Your task to perform on an android device: turn off picture-in-picture Image 0: 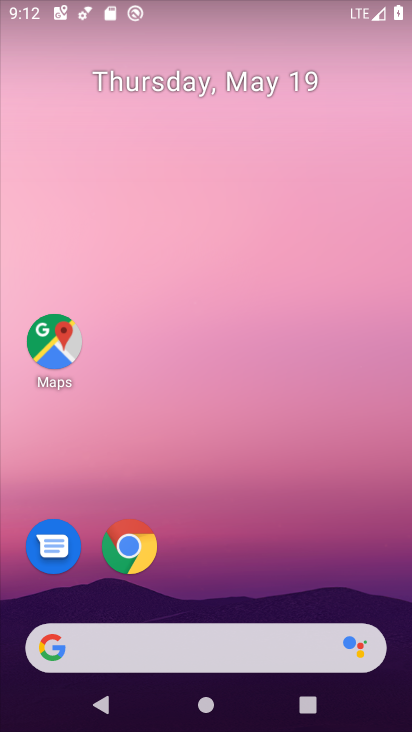
Step 0: drag from (271, 666) to (169, 2)
Your task to perform on an android device: turn off picture-in-picture Image 1: 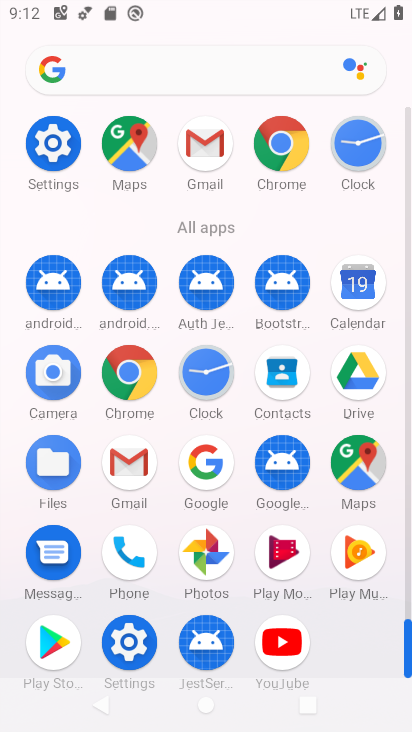
Step 1: click (280, 144)
Your task to perform on an android device: turn off picture-in-picture Image 2: 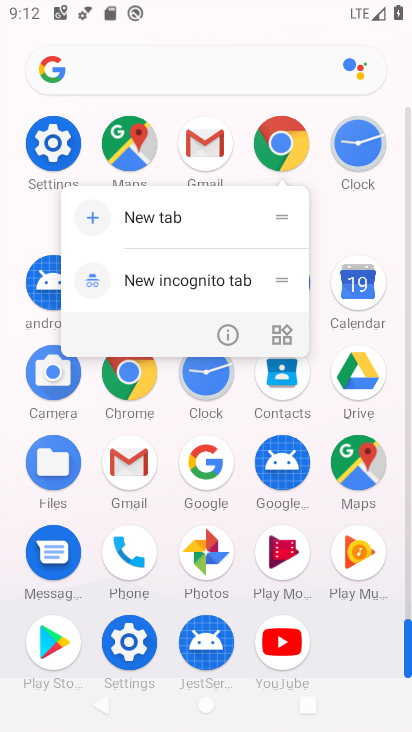
Step 2: click (230, 337)
Your task to perform on an android device: turn off picture-in-picture Image 3: 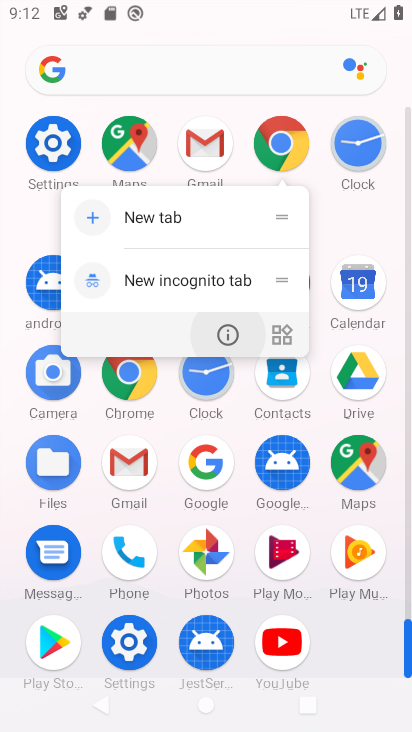
Step 3: click (231, 336)
Your task to perform on an android device: turn off picture-in-picture Image 4: 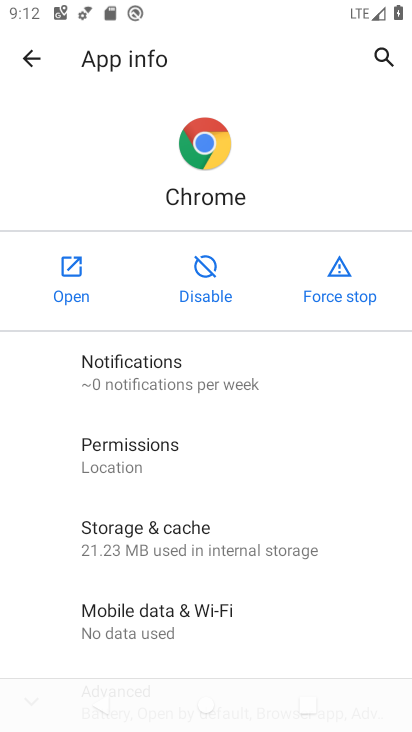
Step 4: drag from (167, 546) to (141, 221)
Your task to perform on an android device: turn off picture-in-picture Image 5: 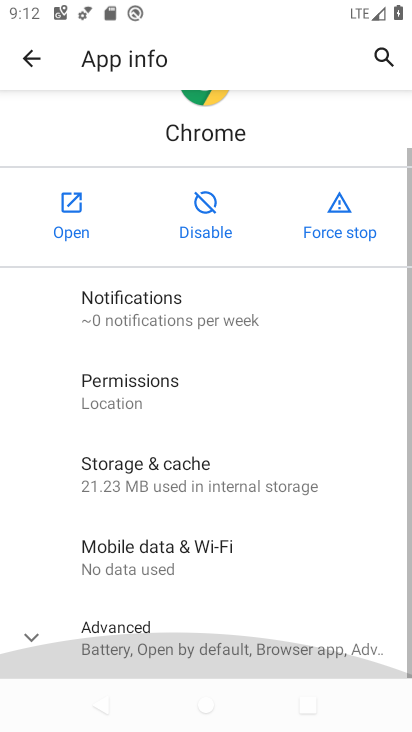
Step 5: drag from (200, 463) to (200, 141)
Your task to perform on an android device: turn off picture-in-picture Image 6: 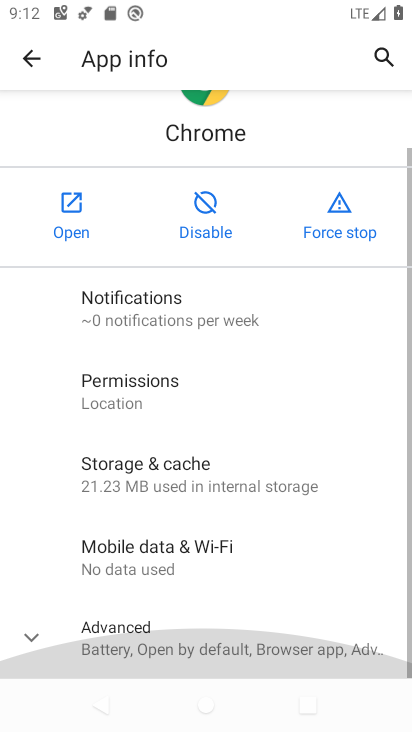
Step 6: drag from (191, 449) to (189, 106)
Your task to perform on an android device: turn off picture-in-picture Image 7: 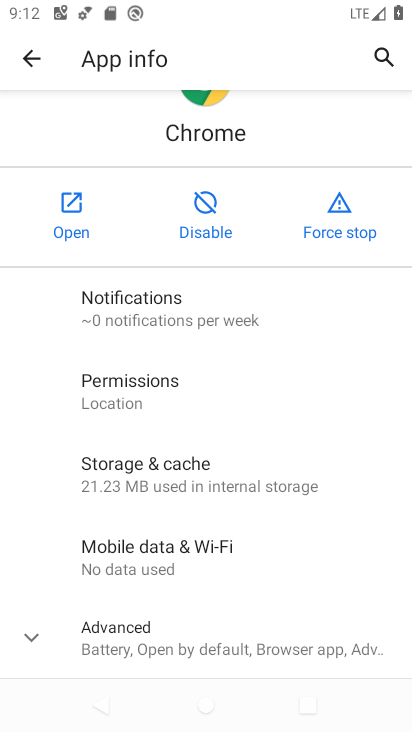
Step 7: drag from (231, 549) to (167, 150)
Your task to perform on an android device: turn off picture-in-picture Image 8: 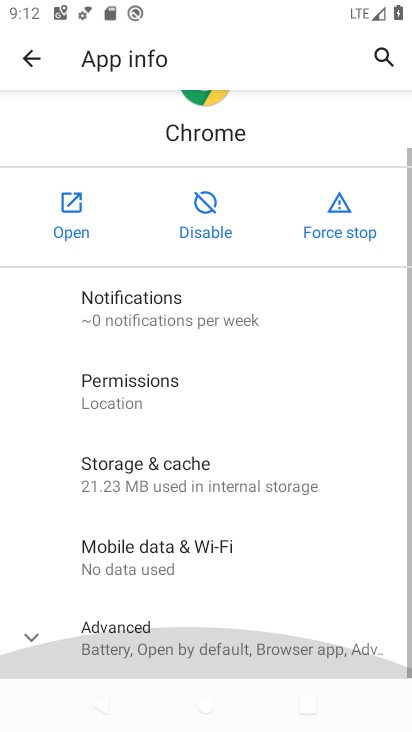
Step 8: drag from (116, 457) to (123, 216)
Your task to perform on an android device: turn off picture-in-picture Image 9: 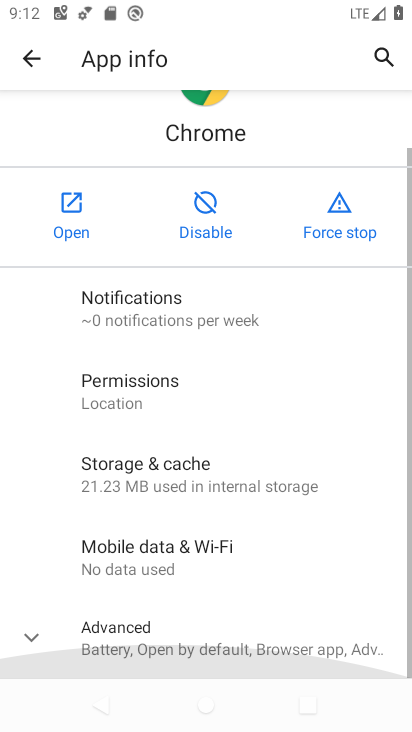
Step 9: drag from (203, 494) to (196, 236)
Your task to perform on an android device: turn off picture-in-picture Image 10: 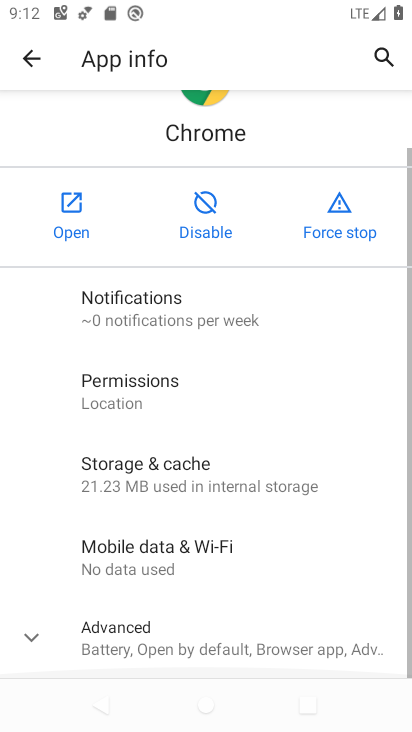
Step 10: drag from (116, 292) to (100, 126)
Your task to perform on an android device: turn off picture-in-picture Image 11: 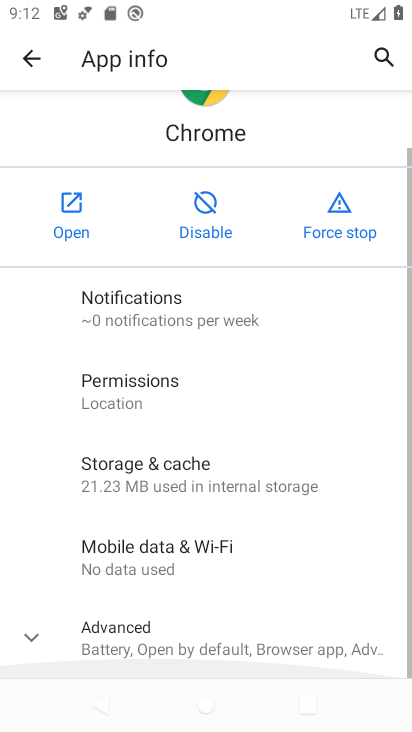
Step 11: drag from (152, 553) to (201, 267)
Your task to perform on an android device: turn off picture-in-picture Image 12: 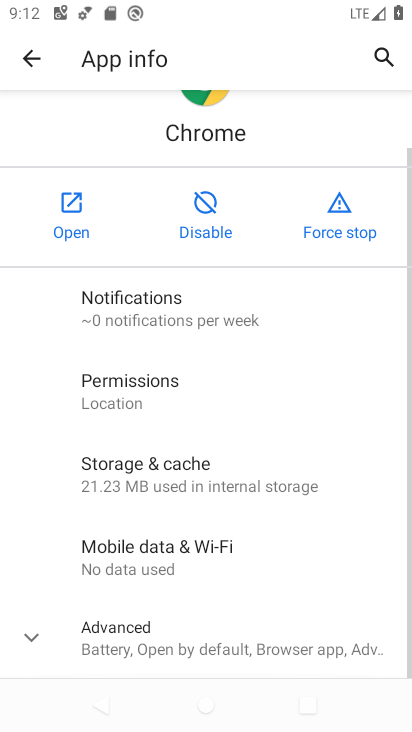
Step 12: click (138, 640)
Your task to perform on an android device: turn off picture-in-picture Image 13: 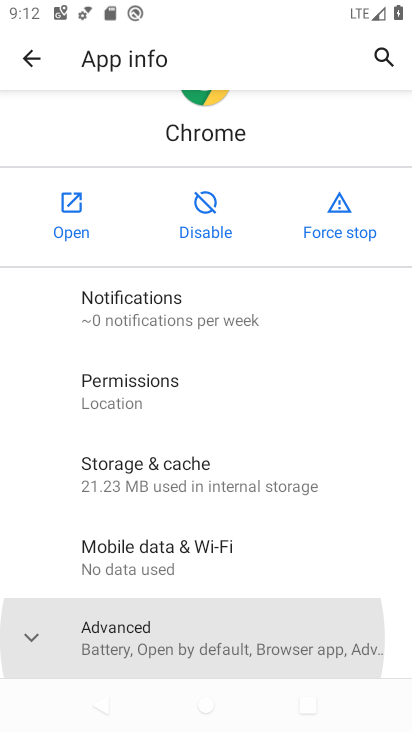
Step 13: click (138, 640)
Your task to perform on an android device: turn off picture-in-picture Image 14: 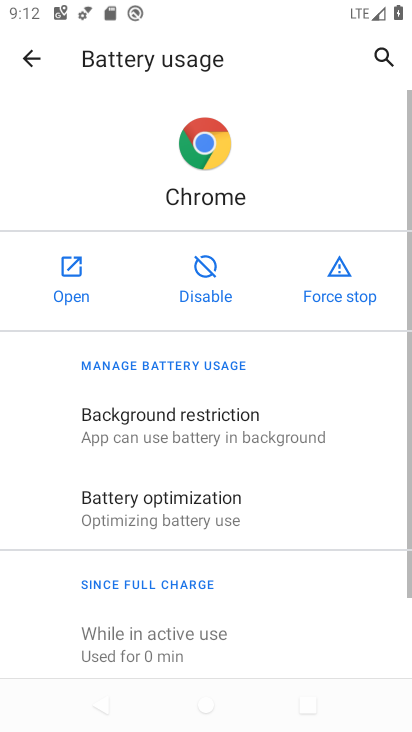
Step 14: drag from (254, 497) to (244, 329)
Your task to perform on an android device: turn off picture-in-picture Image 15: 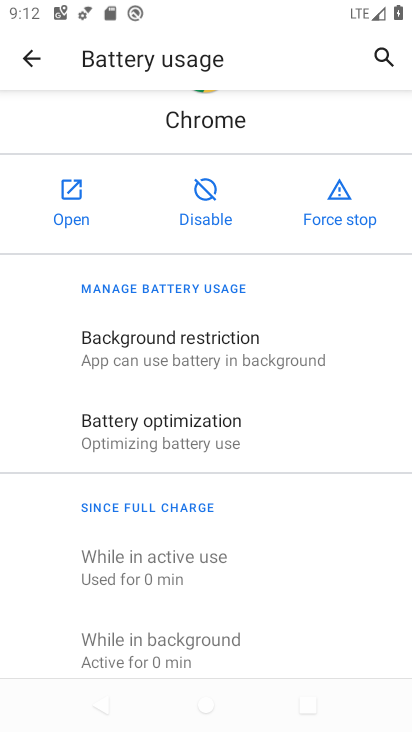
Step 15: click (29, 58)
Your task to perform on an android device: turn off picture-in-picture Image 16: 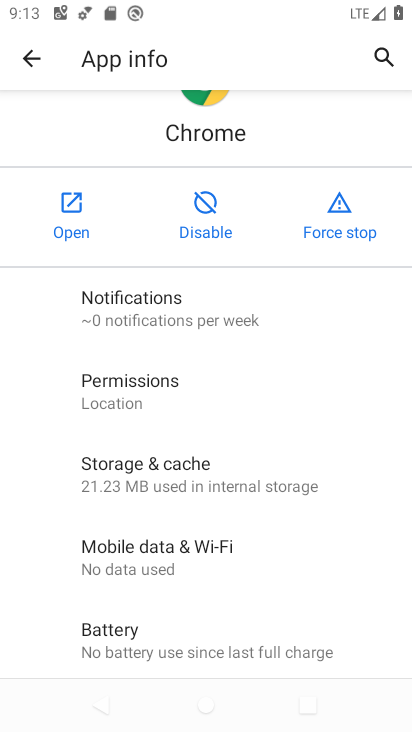
Step 16: drag from (158, 504) to (153, 135)
Your task to perform on an android device: turn off picture-in-picture Image 17: 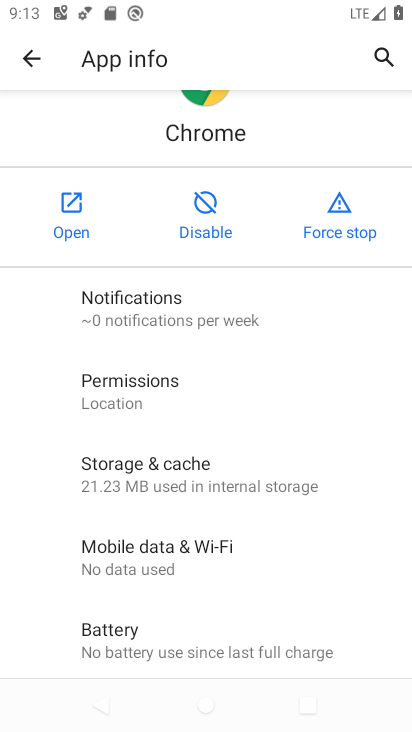
Step 17: drag from (155, 511) to (153, 189)
Your task to perform on an android device: turn off picture-in-picture Image 18: 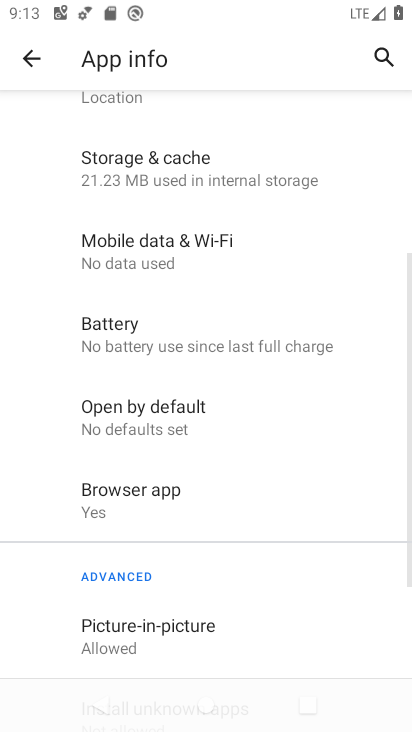
Step 18: click (110, 644)
Your task to perform on an android device: turn off picture-in-picture Image 19: 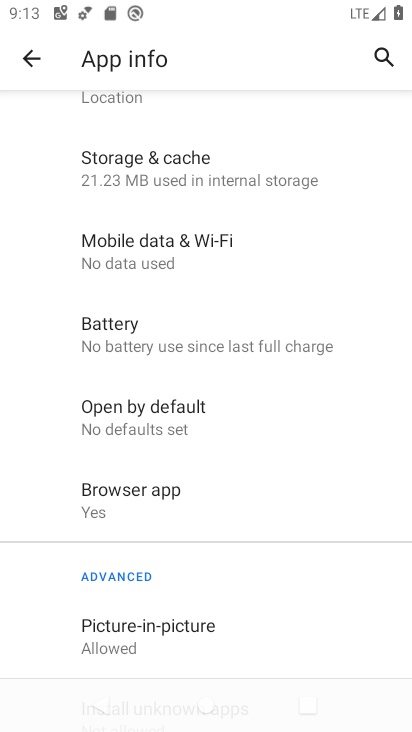
Step 19: click (110, 637)
Your task to perform on an android device: turn off picture-in-picture Image 20: 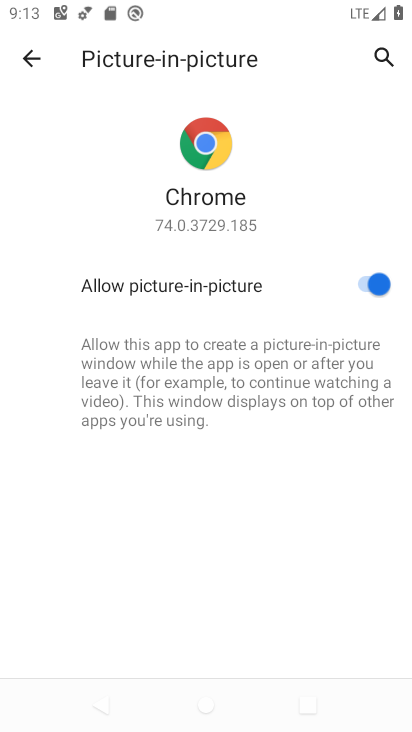
Step 20: click (371, 283)
Your task to perform on an android device: turn off picture-in-picture Image 21: 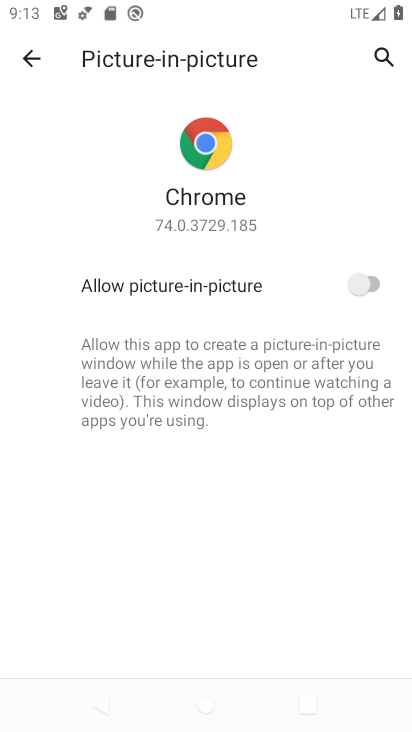
Step 21: task complete